Your task to perform on an android device: turn off data saver in the chrome app Image 0: 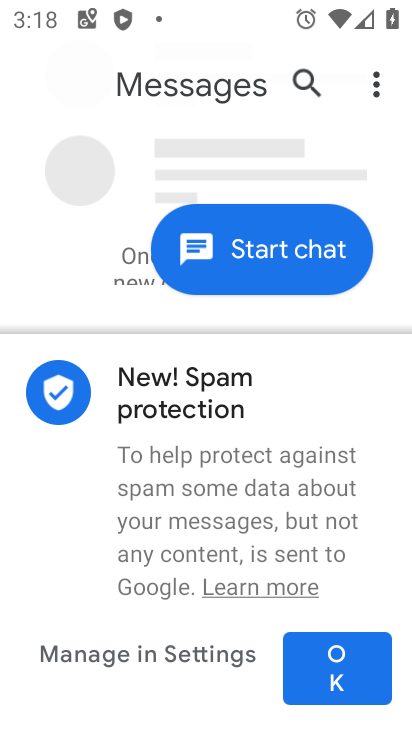
Step 0: press home button
Your task to perform on an android device: turn off data saver in the chrome app Image 1: 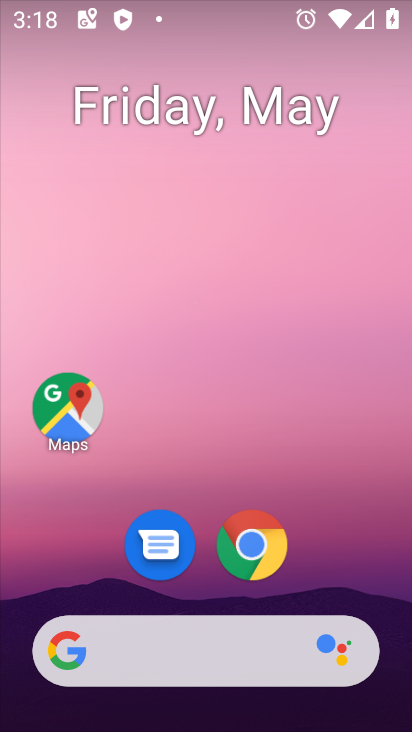
Step 1: click (260, 550)
Your task to perform on an android device: turn off data saver in the chrome app Image 2: 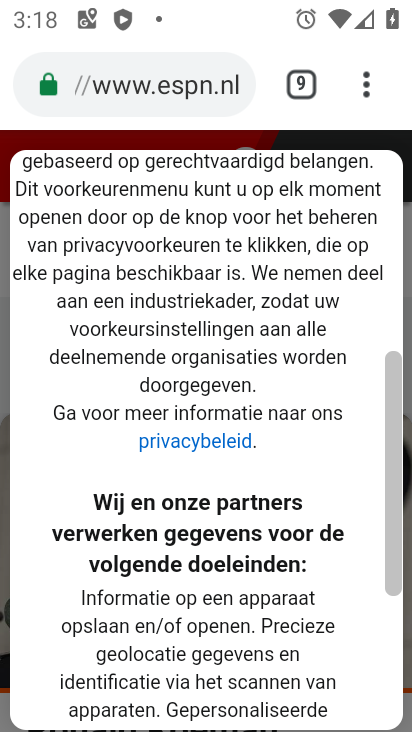
Step 2: click (371, 77)
Your task to perform on an android device: turn off data saver in the chrome app Image 3: 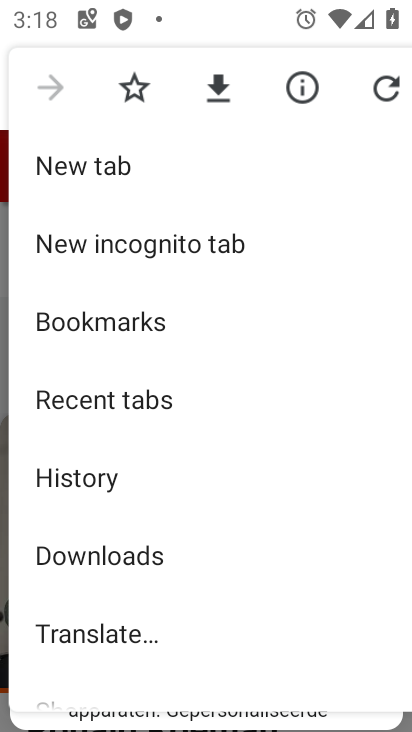
Step 3: drag from (194, 602) to (210, 219)
Your task to perform on an android device: turn off data saver in the chrome app Image 4: 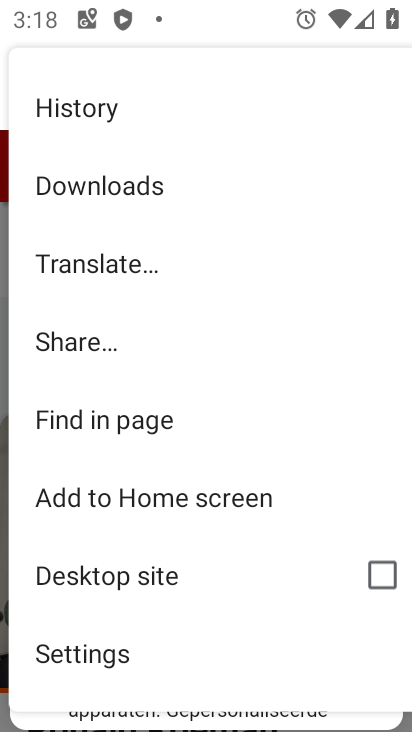
Step 4: click (120, 644)
Your task to perform on an android device: turn off data saver in the chrome app Image 5: 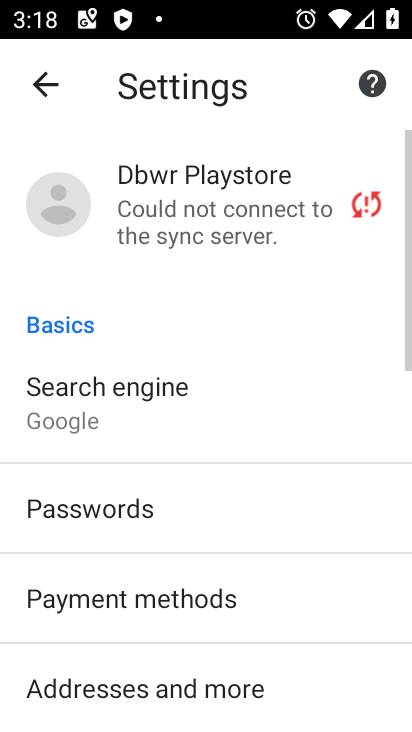
Step 5: drag from (231, 592) to (305, 149)
Your task to perform on an android device: turn off data saver in the chrome app Image 6: 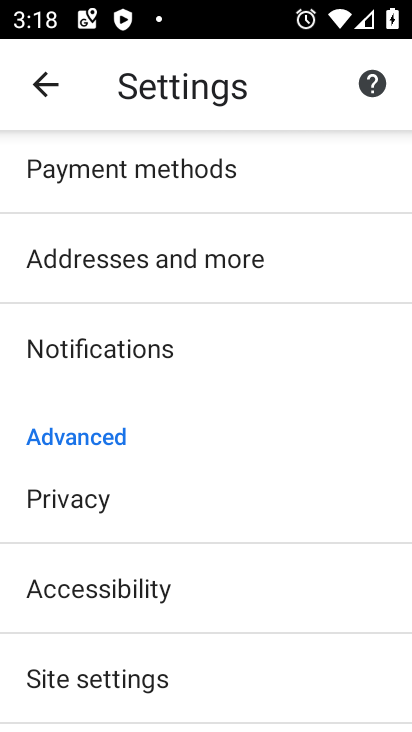
Step 6: drag from (305, 557) to (315, 330)
Your task to perform on an android device: turn off data saver in the chrome app Image 7: 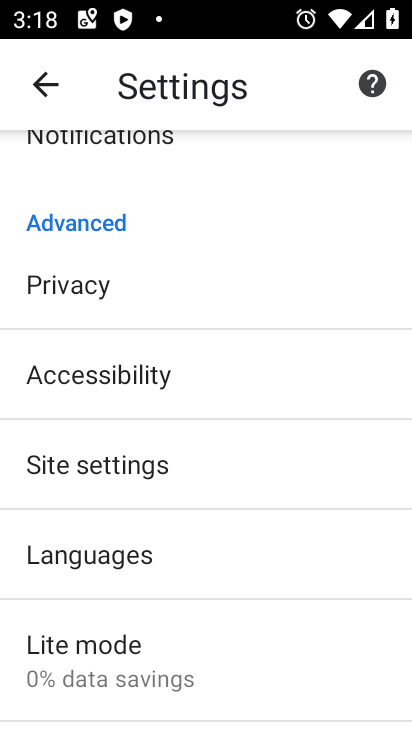
Step 7: click (100, 674)
Your task to perform on an android device: turn off data saver in the chrome app Image 8: 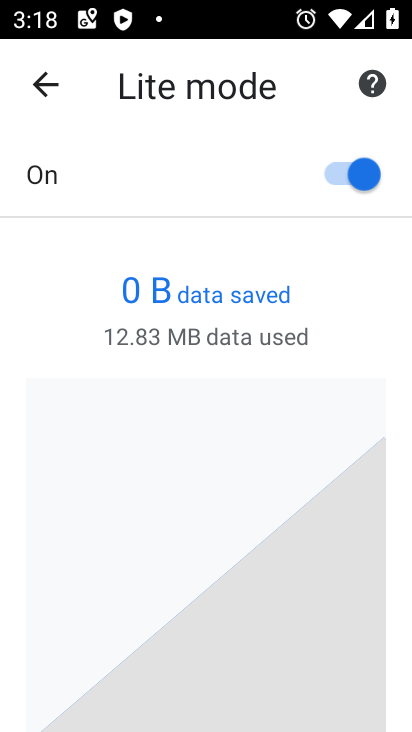
Step 8: click (336, 172)
Your task to perform on an android device: turn off data saver in the chrome app Image 9: 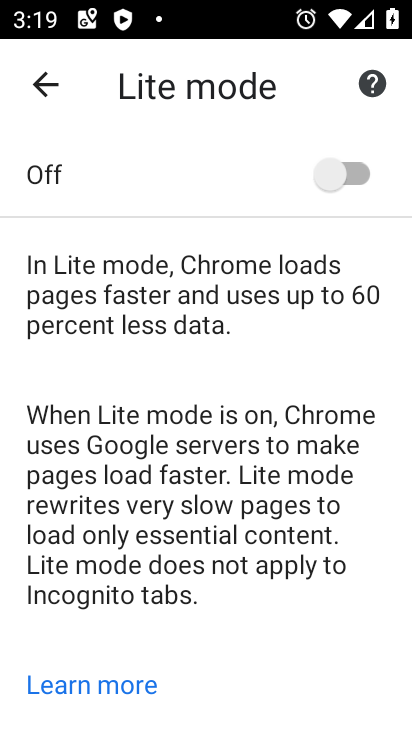
Step 9: task complete